Your task to perform on an android device: Open Google Chrome and click the shortcut for Amazon.com Image 0: 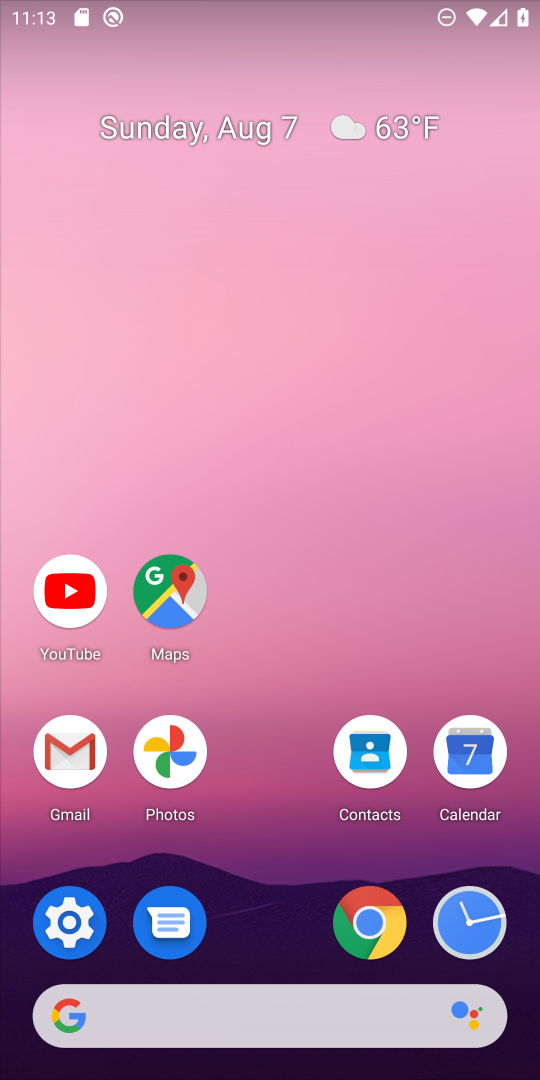
Step 0: click (368, 918)
Your task to perform on an android device: Open Google Chrome and click the shortcut for Amazon.com Image 1: 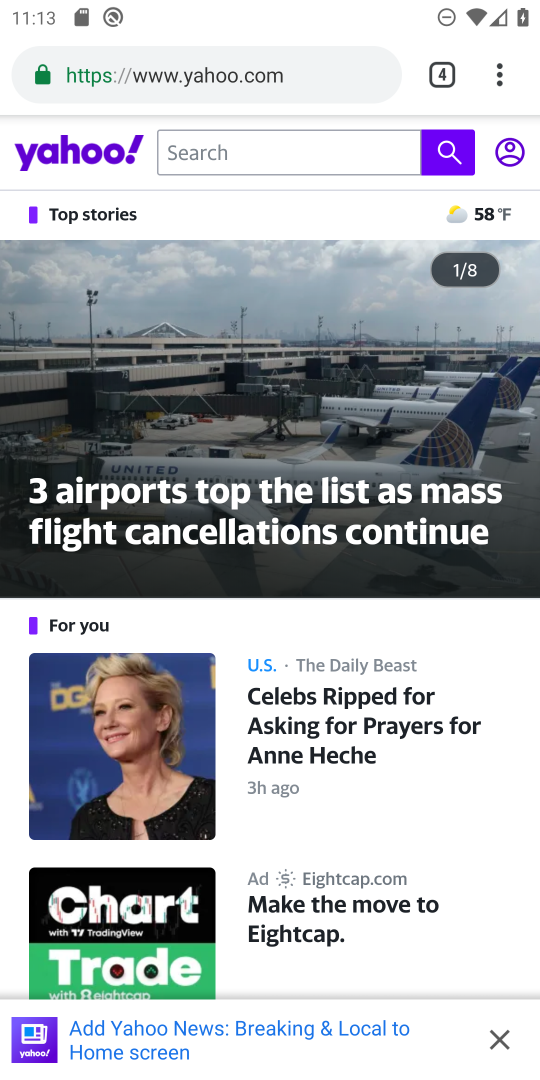
Step 1: click (506, 63)
Your task to perform on an android device: Open Google Chrome and click the shortcut for Amazon.com Image 2: 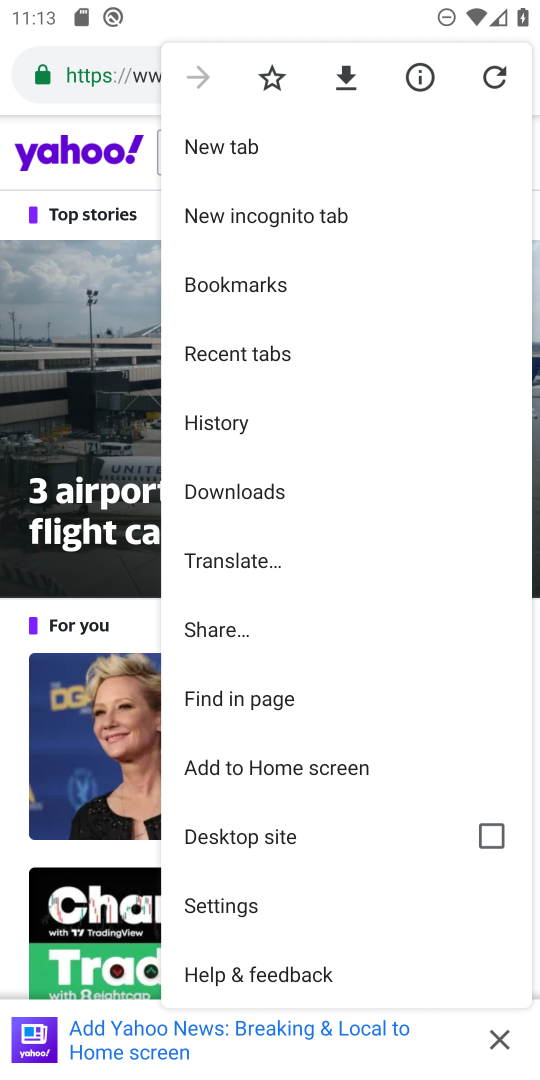
Step 2: click (221, 143)
Your task to perform on an android device: Open Google Chrome and click the shortcut for Amazon.com Image 3: 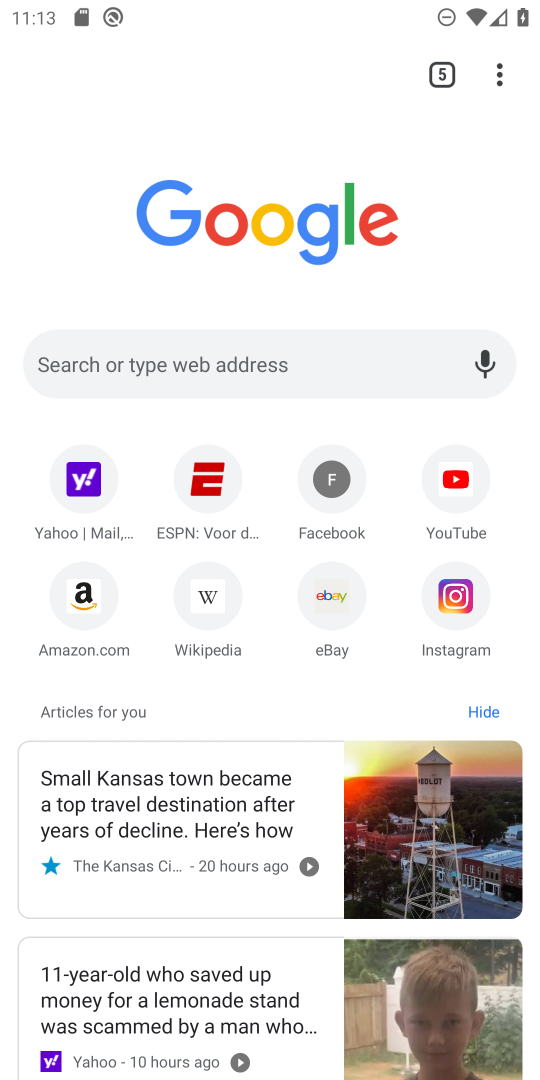
Step 3: click (110, 605)
Your task to perform on an android device: Open Google Chrome and click the shortcut for Amazon.com Image 4: 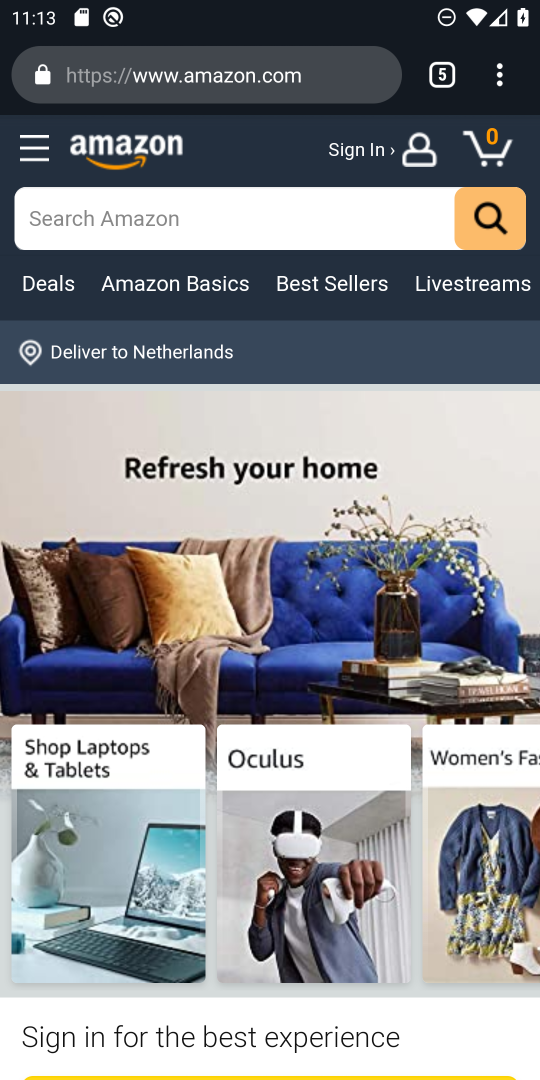
Step 4: task complete